Your task to perform on an android device: Open the Play Movies app and select the watchlist tab. Image 0: 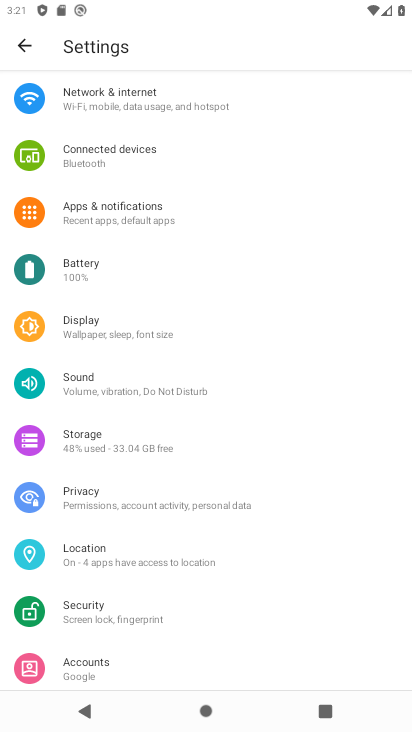
Step 0: press home button
Your task to perform on an android device: Open the Play Movies app and select the watchlist tab. Image 1: 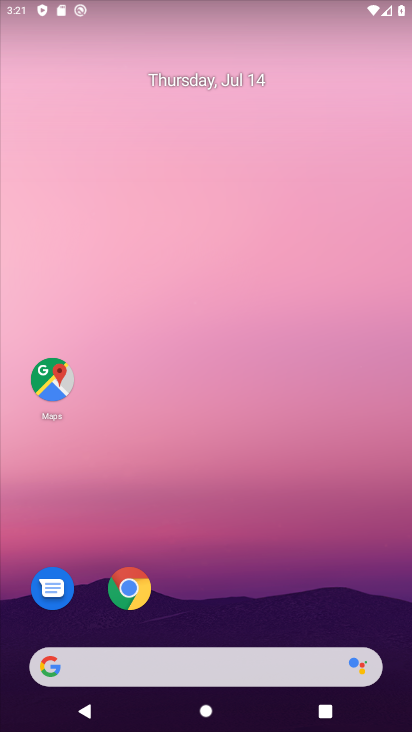
Step 1: drag from (278, 547) to (292, 673)
Your task to perform on an android device: Open the Play Movies app and select the watchlist tab. Image 2: 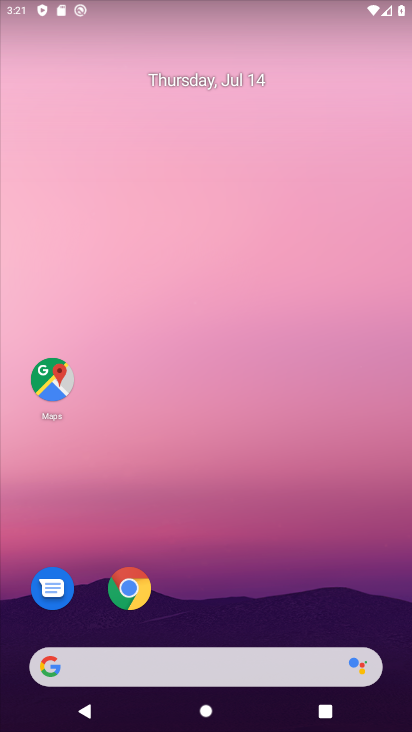
Step 2: drag from (265, 636) to (362, 39)
Your task to perform on an android device: Open the Play Movies app and select the watchlist tab. Image 3: 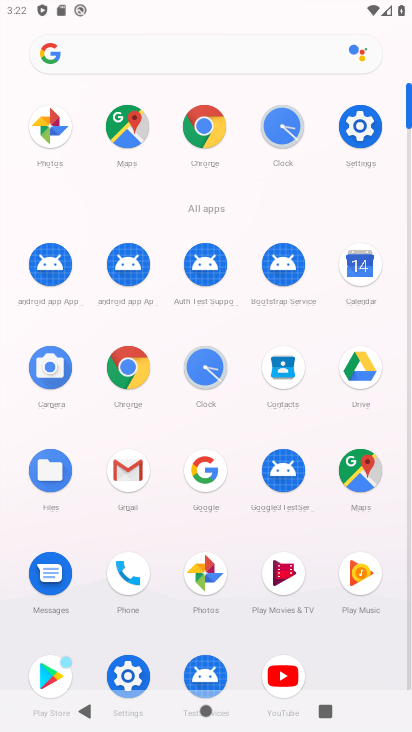
Step 3: click (280, 574)
Your task to perform on an android device: Open the Play Movies app and select the watchlist tab. Image 4: 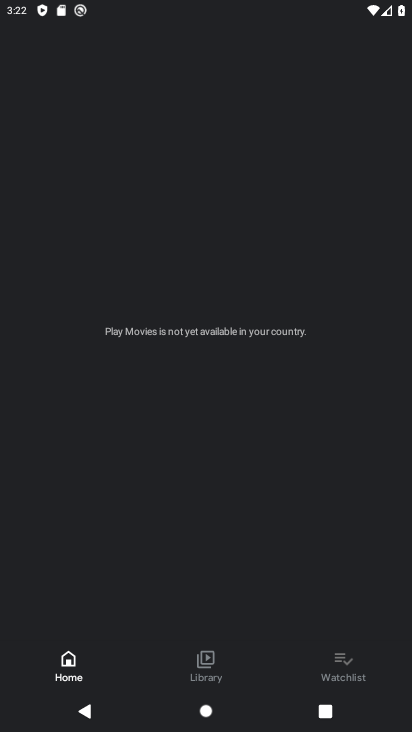
Step 4: click (343, 669)
Your task to perform on an android device: Open the Play Movies app and select the watchlist tab. Image 5: 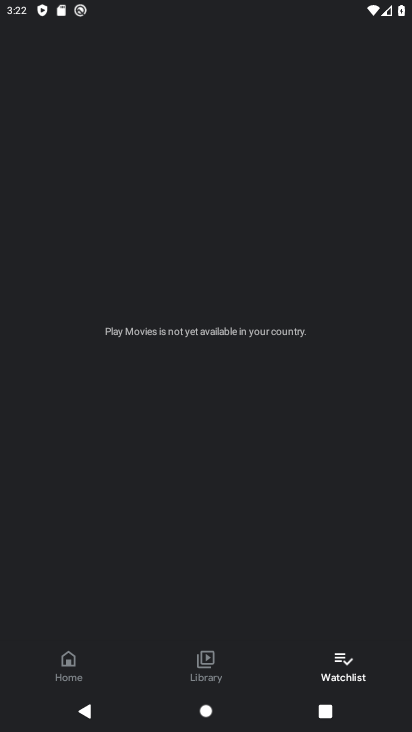
Step 5: task complete